Your task to perform on an android device: Open display settings Image 0: 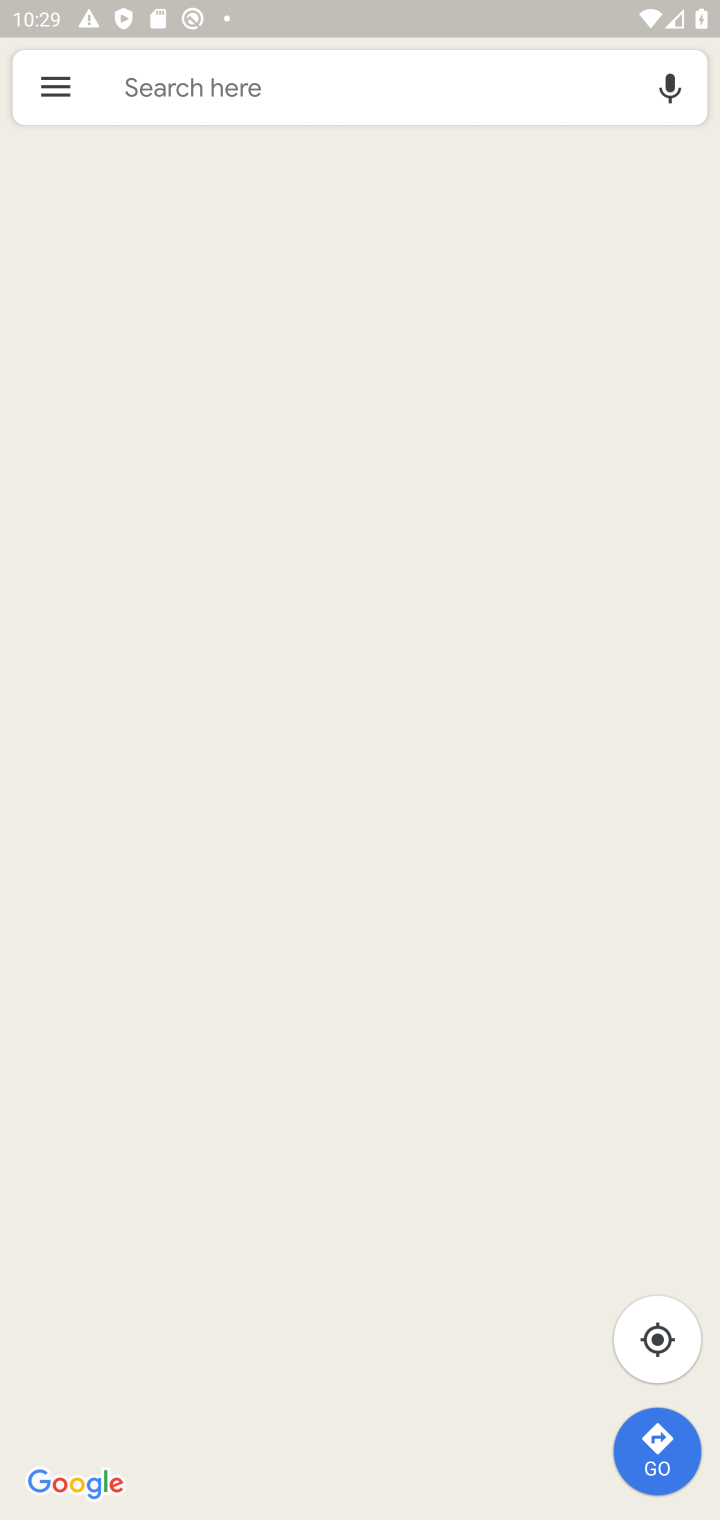
Step 0: press home button
Your task to perform on an android device: Open display settings Image 1: 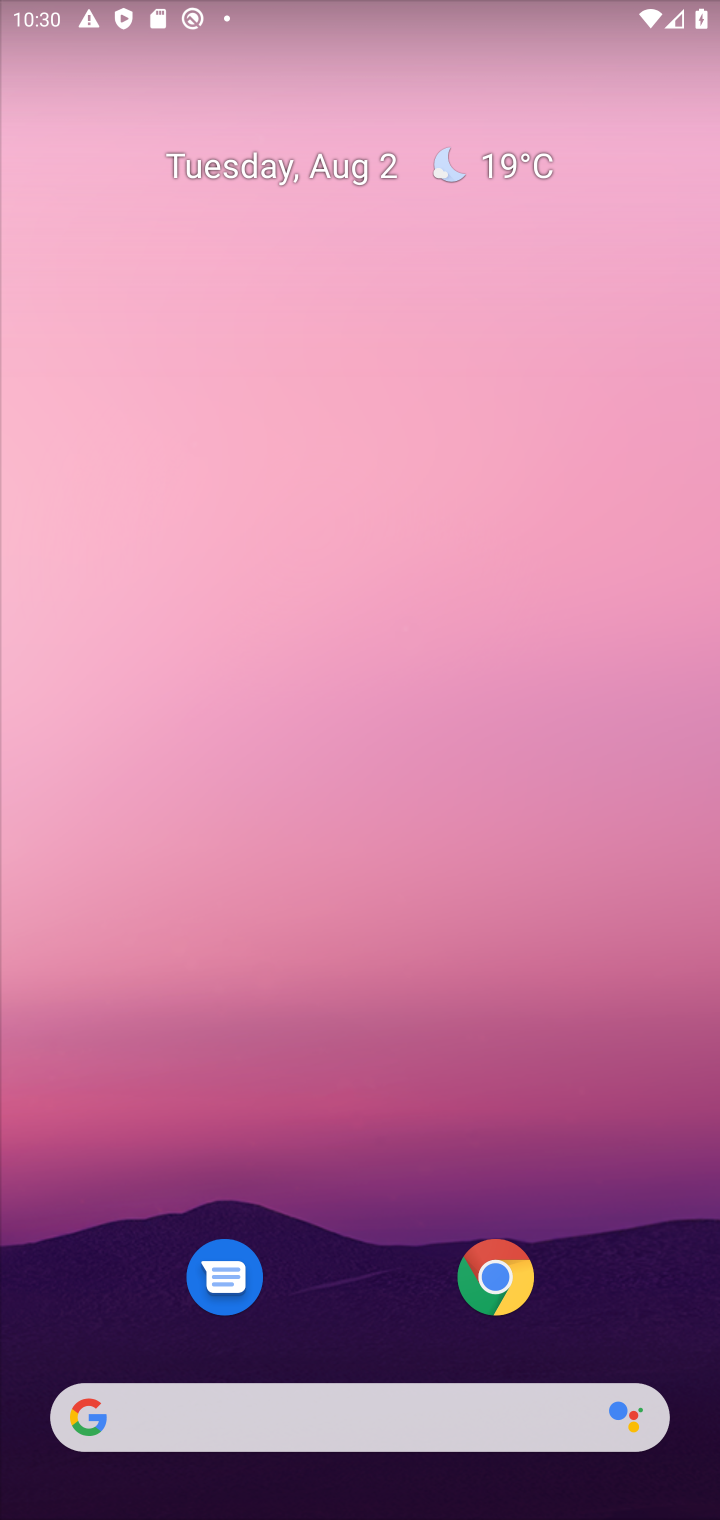
Step 1: drag from (322, 1343) to (501, 384)
Your task to perform on an android device: Open display settings Image 2: 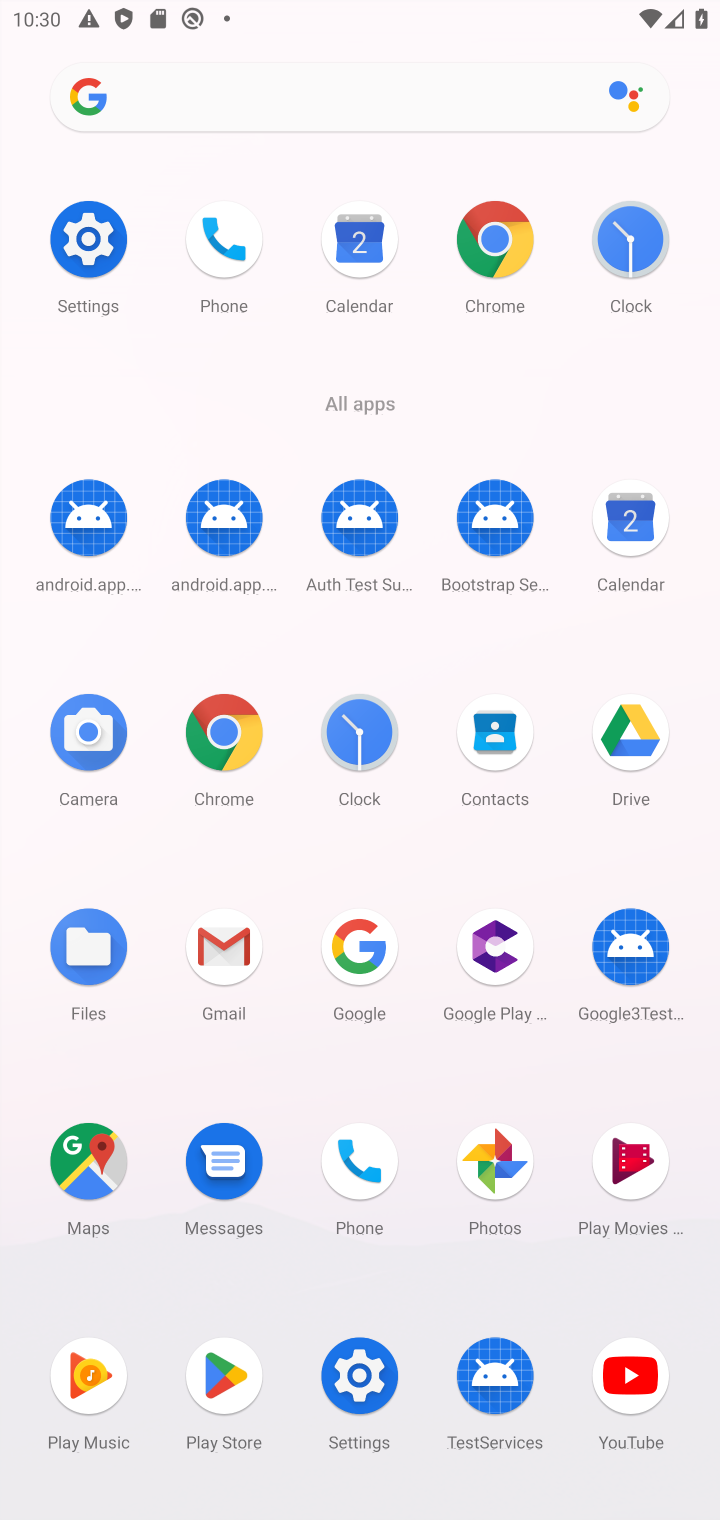
Step 2: click (285, 343)
Your task to perform on an android device: Open display settings Image 3: 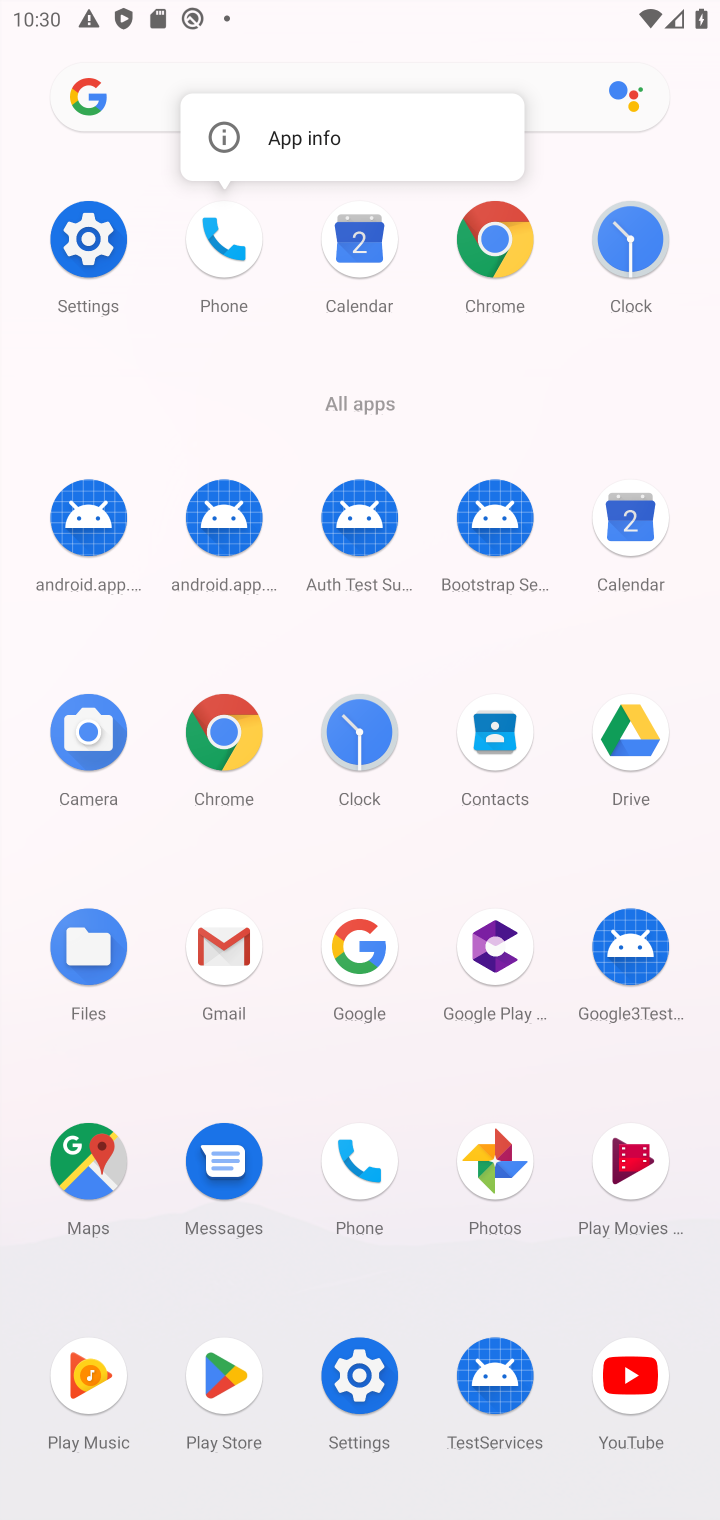
Step 3: click (93, 257)
Your task to perform on an android device: Open display settings Image 4: 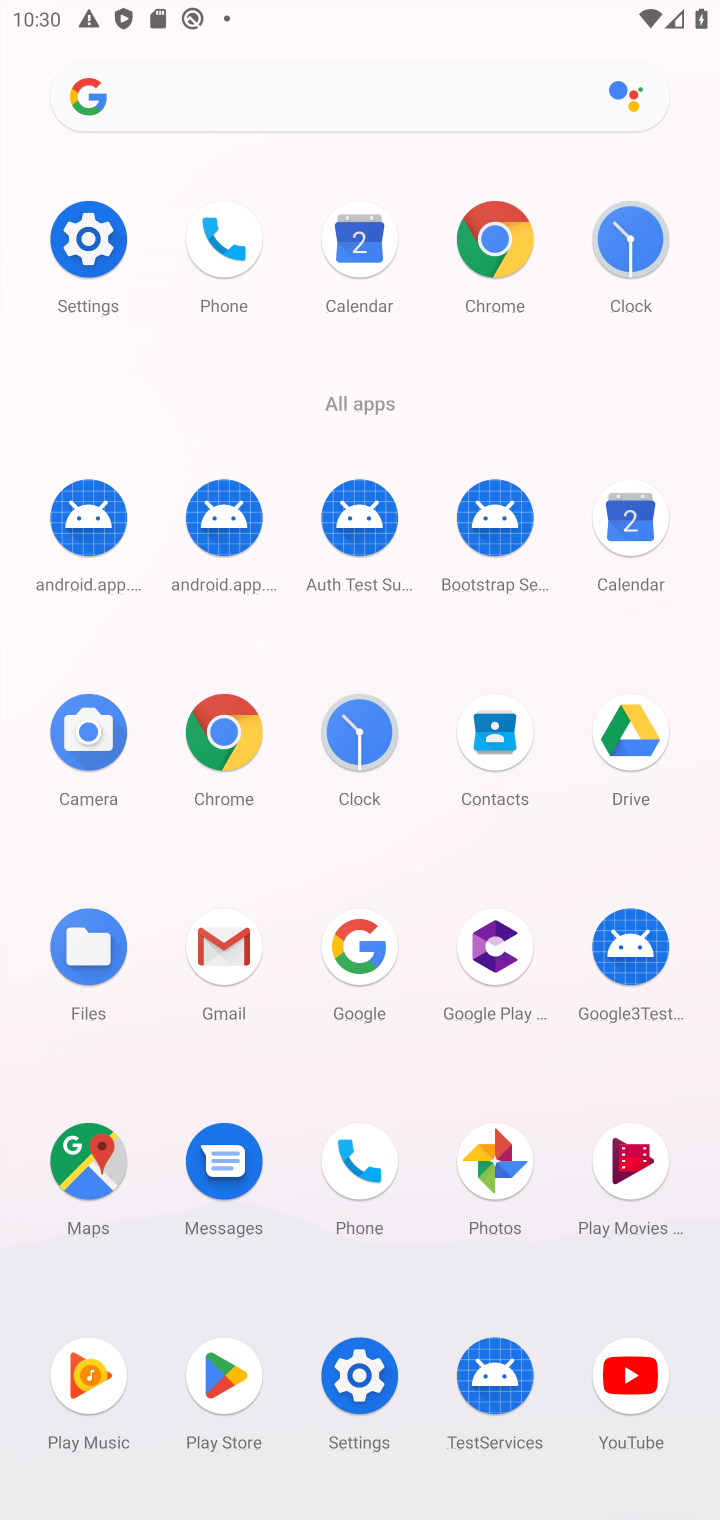
Step 4: click (85, 252)
Your task to perform on an android device: Open display settings Image 5: 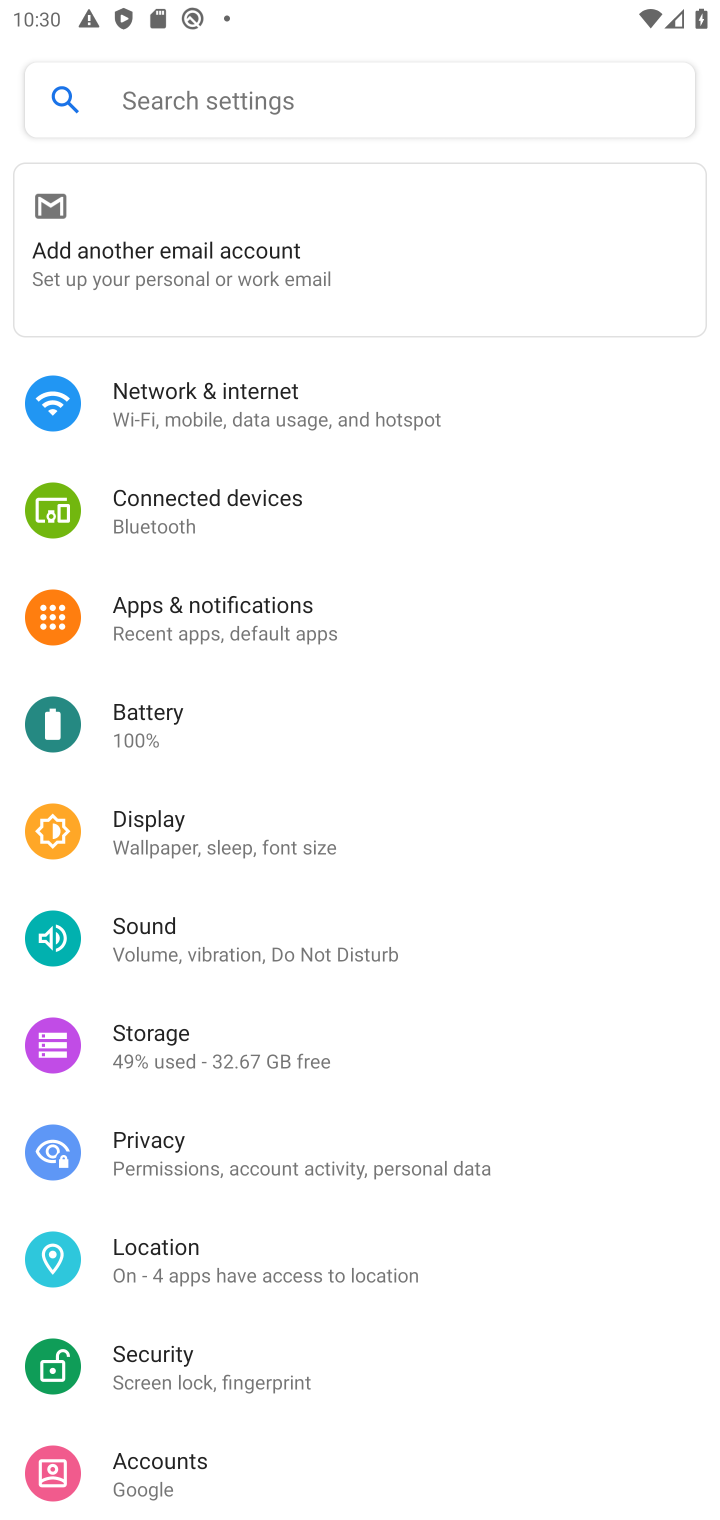
Step 5: click (181, 836)
Your task to perform on an android device: Open display settings Image 6: 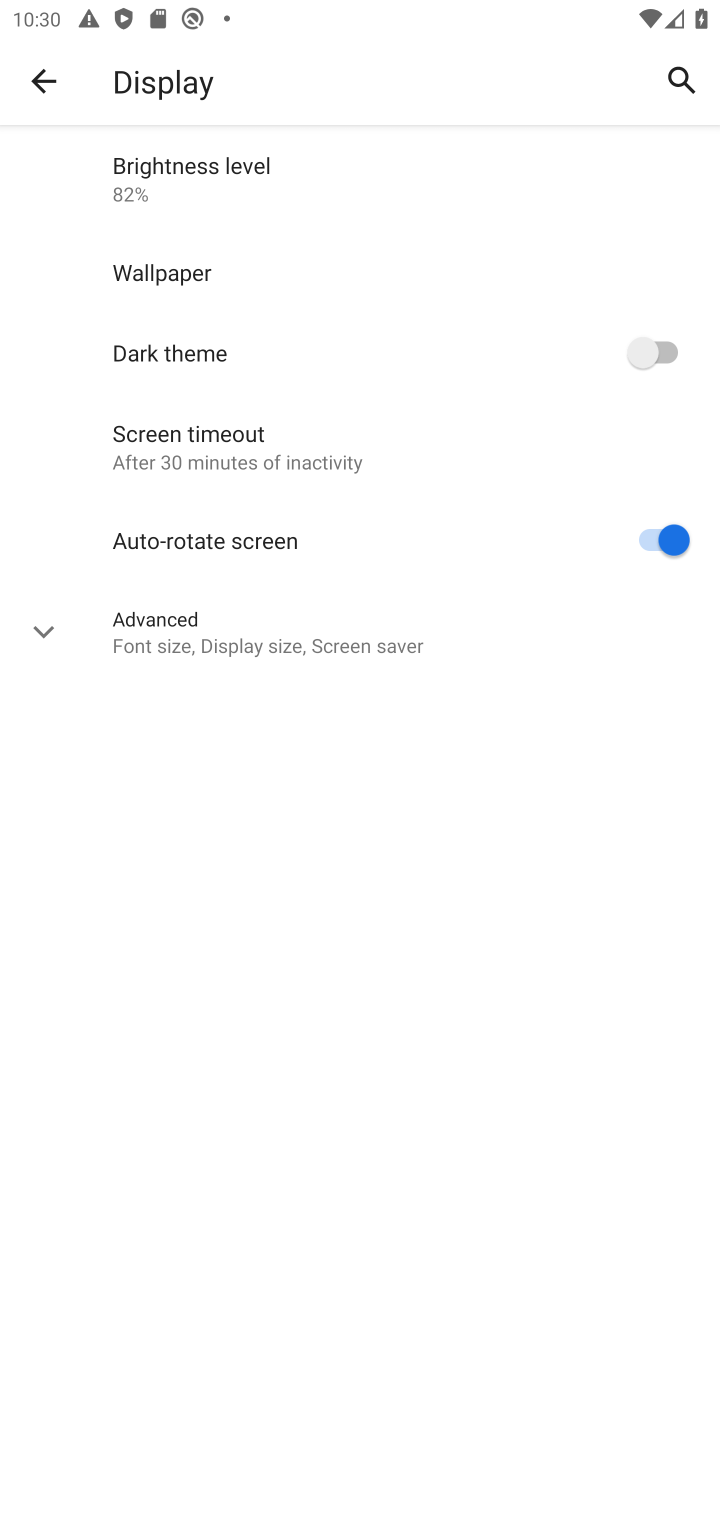
Step 6: task complete